Your task to perform on an android device: Play the last video I watched on Youtube Image 0: 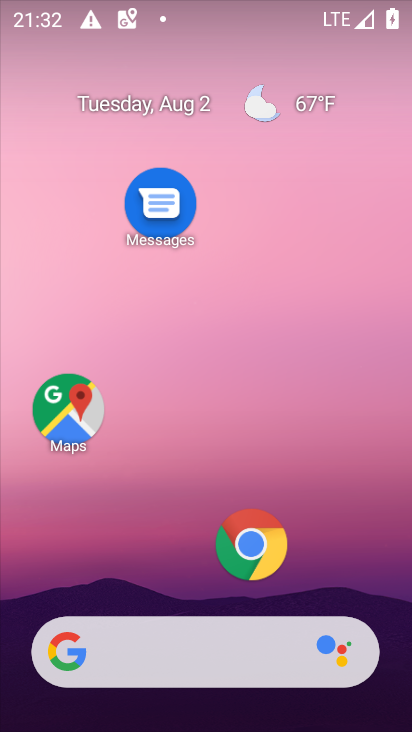
Step 0: drag from (178, 592) to (199, 170)
Your task to perform on an android device: Play the last video I watched on Youtube Image 1: 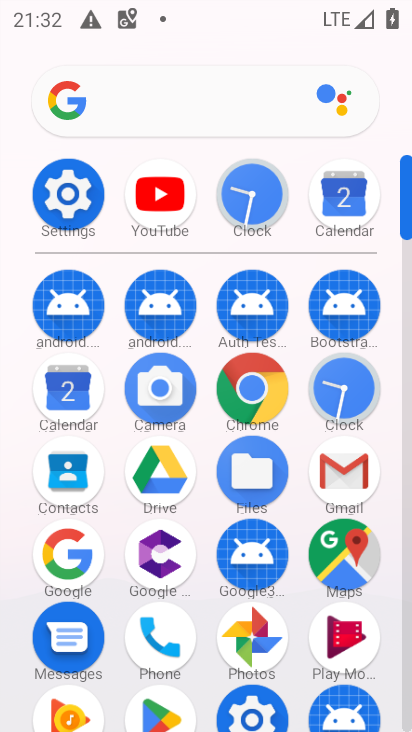
Step 1: click (153, 204)
Your task to perform on an android device: Play the last video I watched on Youtube Image 2: 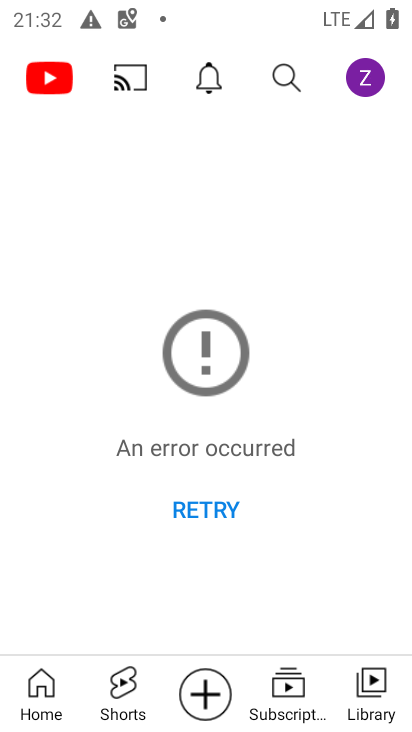
Step 2: click (373, 695)
Your task to perform on an android device: Play the last video I watched on Youtube Image 3: 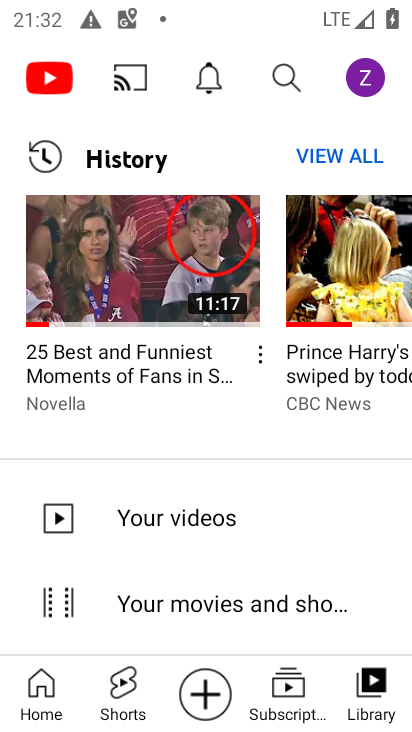
Step 3: click (136, 294)
Your task to perform on an android device: Play the last video I watched on Youtube Image 4: 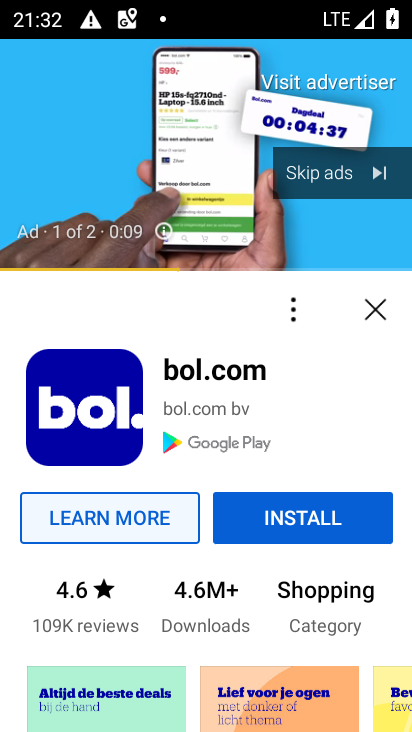
Step 4: click (237, 164)
Your task to perform on an android device: Play the last video I watched on Youtube Image 5: 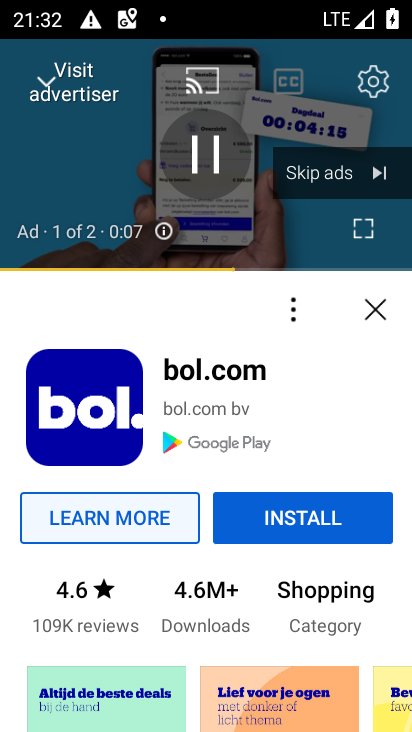
Step 5: click (206, 149)
Your task to perform on an android device: Play the last video I watched on Youtube Image 6: 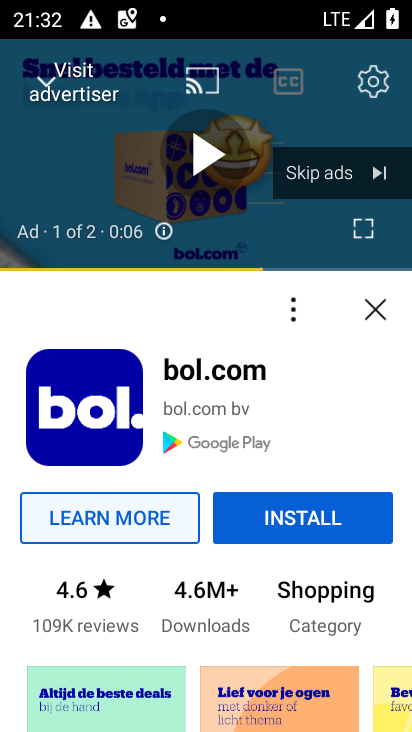
Step 6: task complete